Your task to perform on an android device: Open the phone app and click the voicemail tab. Image 0: 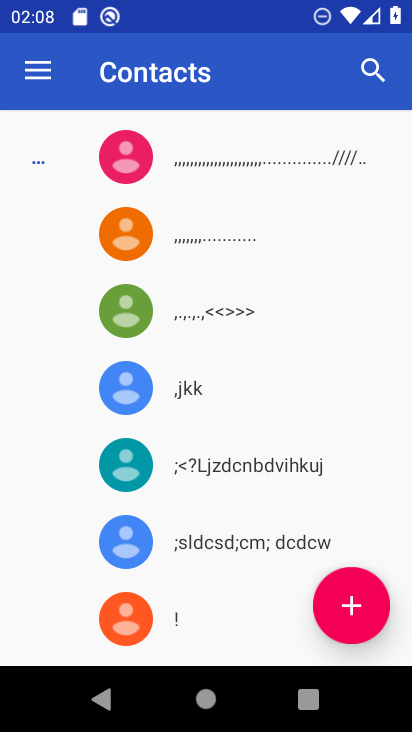
Step 0: press home button
Your task to perform on an android device: Open the phone app and click the voicemail tab. Image 1: 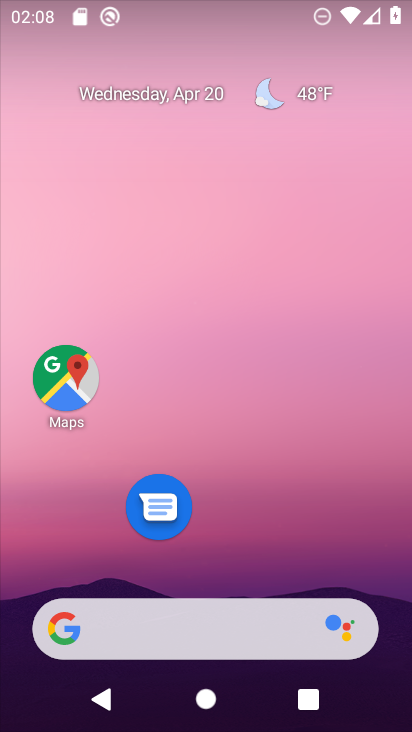
Step 1: drag from (208, 726) to (181, 170)
Your task to perform on an android device: Open the phone app and click the voicemail tab. Image 2: 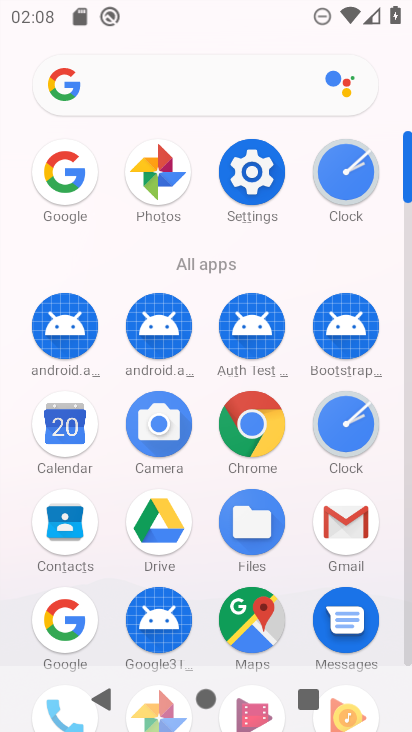
Step 2: drag from (209, 650) to (209, 223)
Your task to perform on an android device: Open the phone app and click the voicemail tab. Image 3: 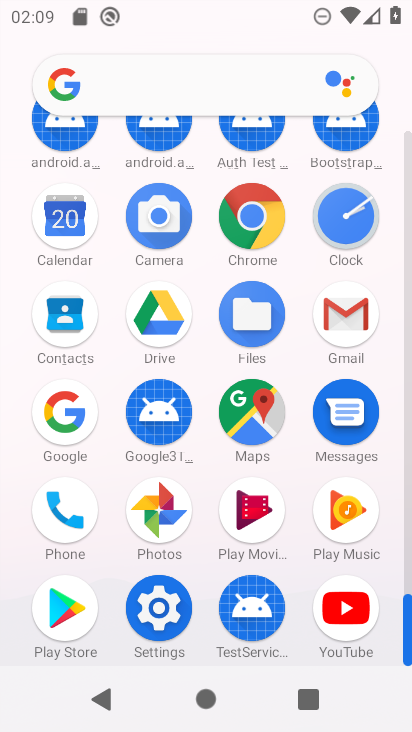
Step 3: click (62, 517)
Your task to perform on an android device: Open the phone app and click the voicemail tab. Image 4: 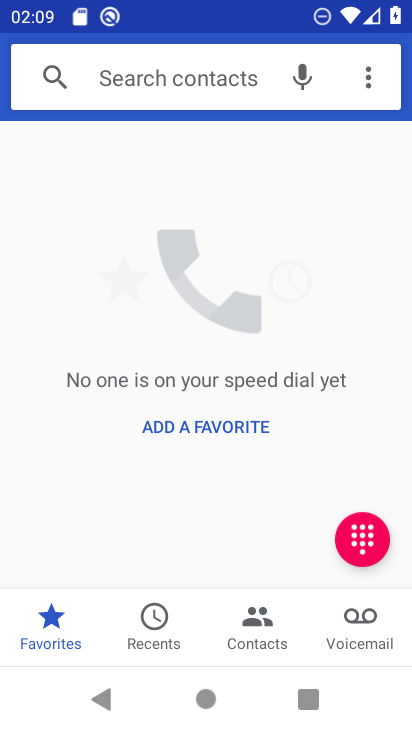
Step 4: click (362, 621)
Your task to perform on an android device: Open the phone app and click the voicemail tab. Image 5: 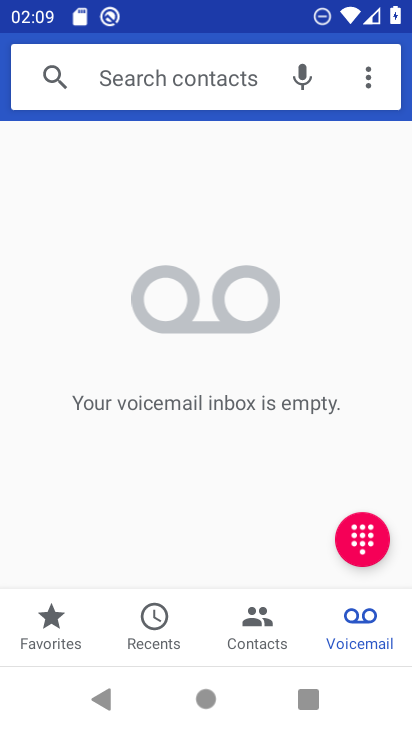
Step 5: task complete